Your task to perform on an android device: turn off improve location accuracy Image 0: 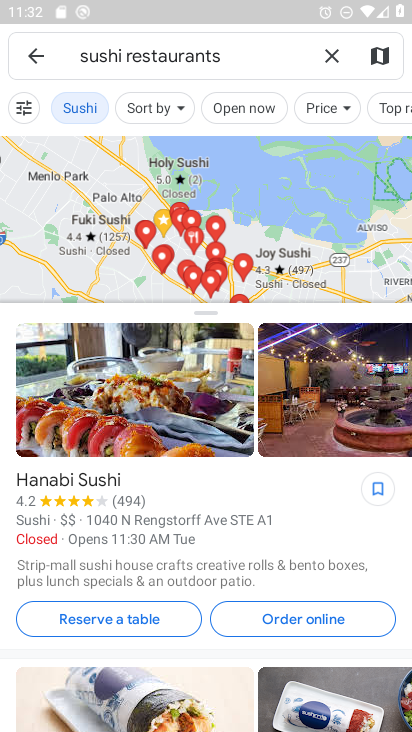
Step 0: press home button
Your task to perform on an android device: turn off improve location accuracy Image 1: 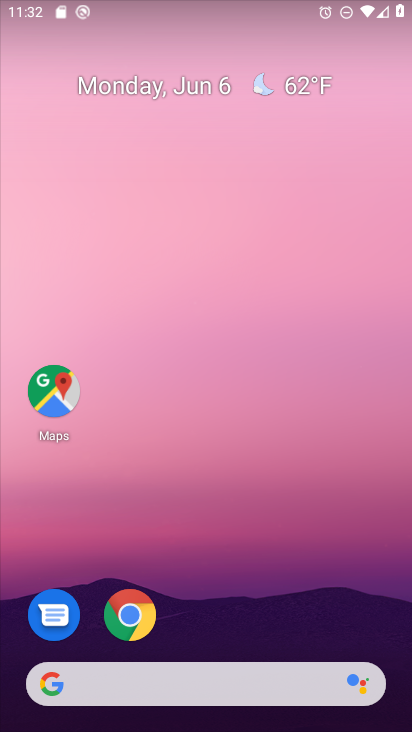
Step 1: drag from (229, 669) to (152, 6)
Your task to perform on an android device: turn off improve location accuracy Image 2: 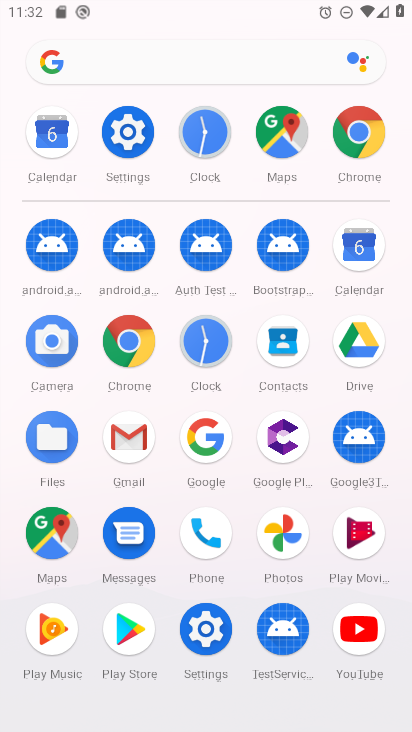
Step 2: click (140, 136)
Your task to perform on an android device: turn off improve location accuracy Image 3: 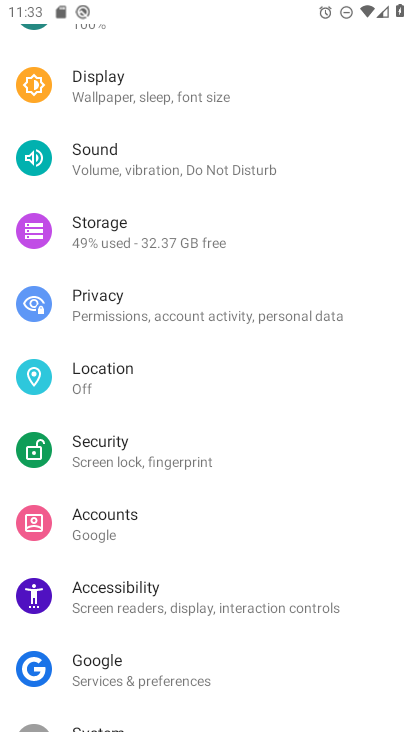
Step 3: click (126, 380)
Your task to perform on an android device: turn off improve location accuracy Image 4: 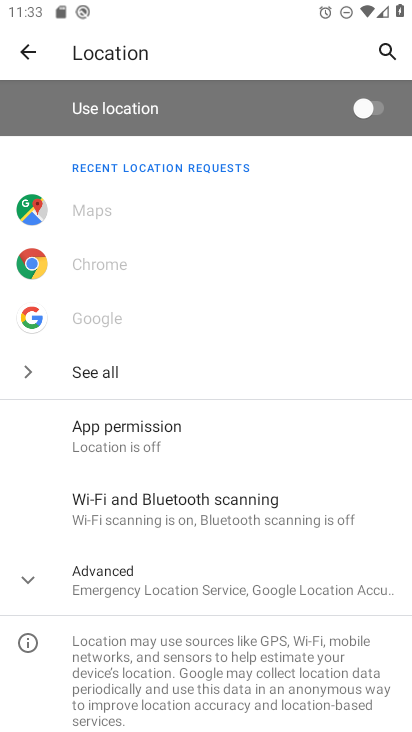
Step 4: click (209, 571)
Your task to perform on an android device: turn off improve location accuracy Image 5: 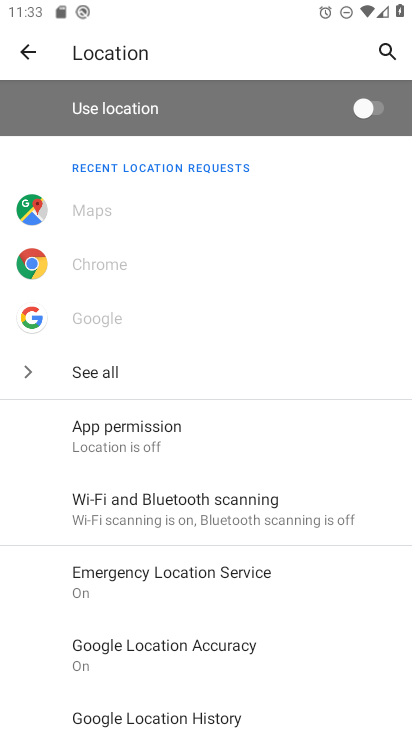
Step 5: click (187, 642)
Your task to perform on an android device: turn off improve location accuracy Image 6: 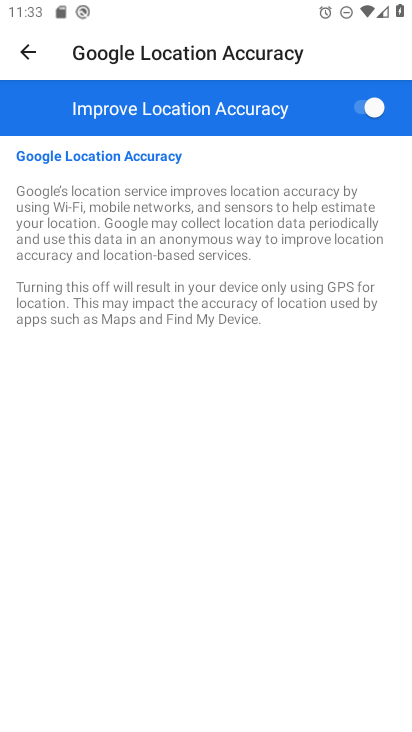
Step 6: click (367, 116)
Your task to perform on an android device: turn off improve location accuracy Image 7: 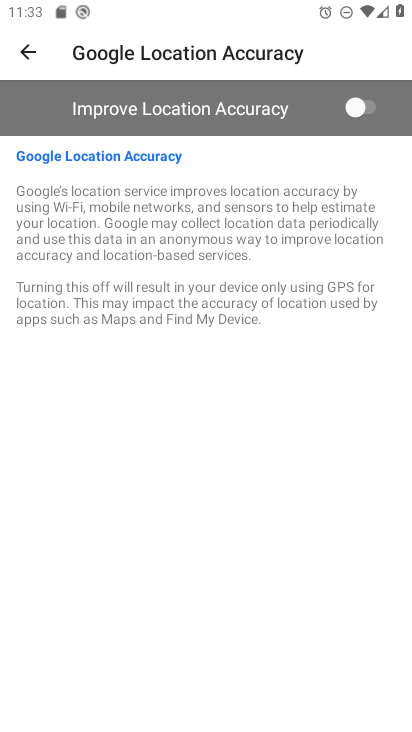
Step 7: task complete